Your task to perform on an android device: Show me popular games on the Play Store Image 0: 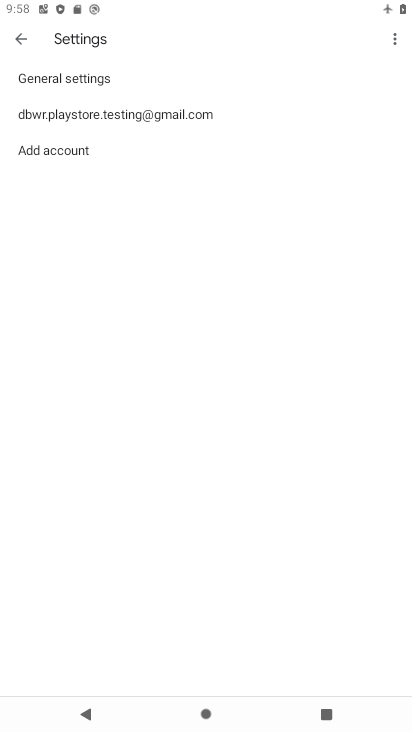
Step 0: press home button
Your task to perform on an android device: Show me popular games on the Play Store Image 1: 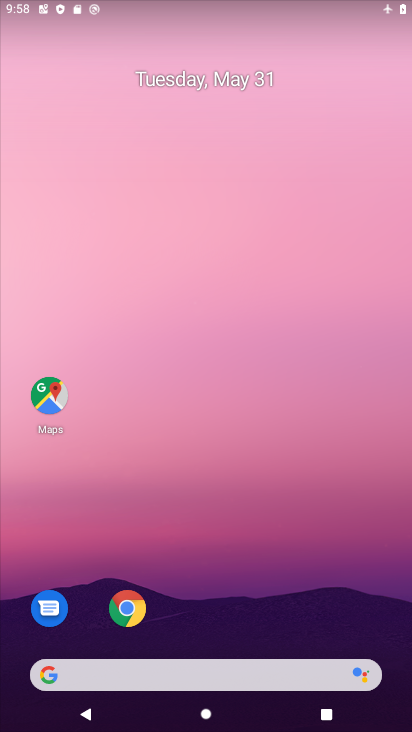
Step 1: drag from (209, 645) to (191, 81)
Your task to perform on an android device: Show me popular games on the Play Store Image 2: 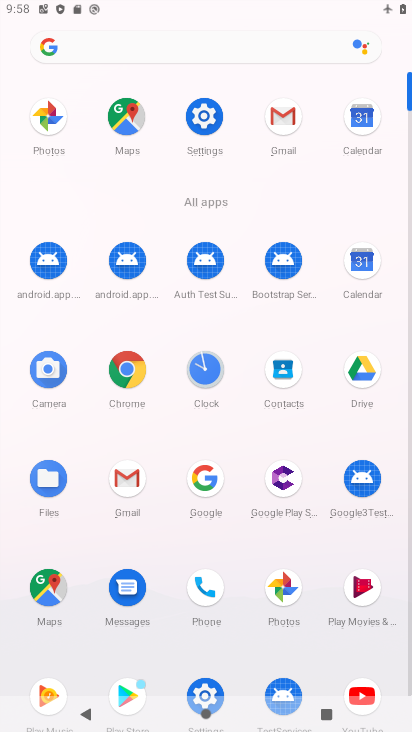
Step 2: click (138, 680)
Your task to perform on an android device: Show me popular games on the Play Store Image 3: 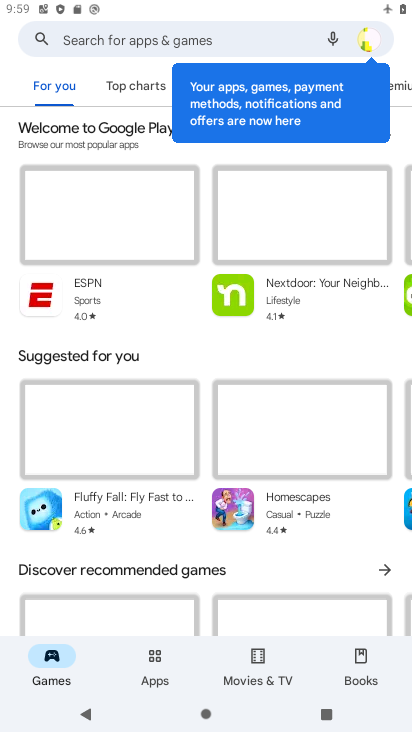
Step 3: click (88, 39)
Your task to perform on an android device: Show me popular games on the Play Store Image 4: 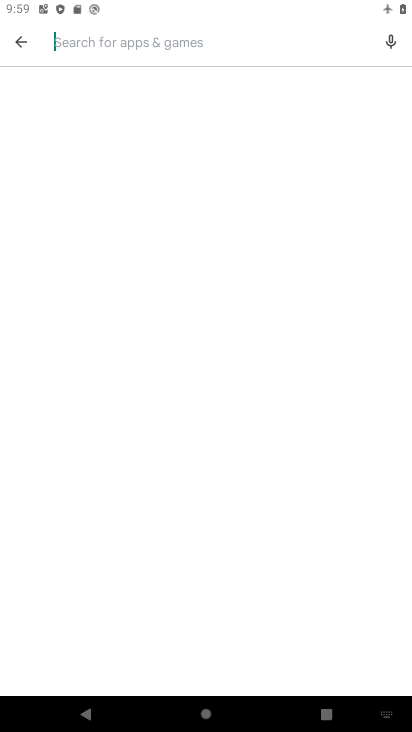
Step 4: click (3, 41)
Your task to perform on an android device: Show me popular games on the Play Store Image 5: 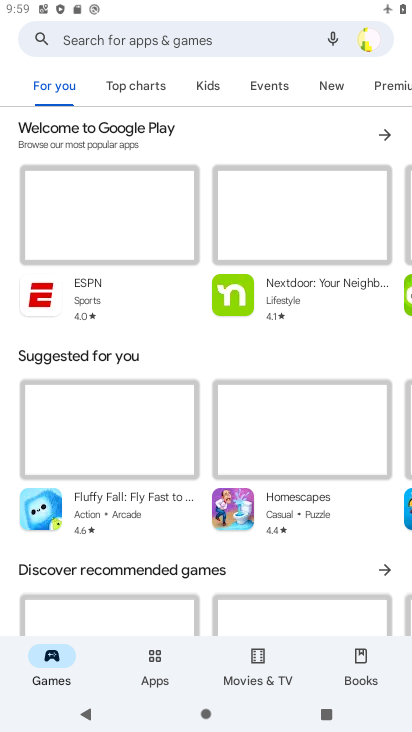
Step 5: drag from (289, 513) to (214, 140)
Your task to perform on an android device: Show me popular games on the Play Store Image 6: 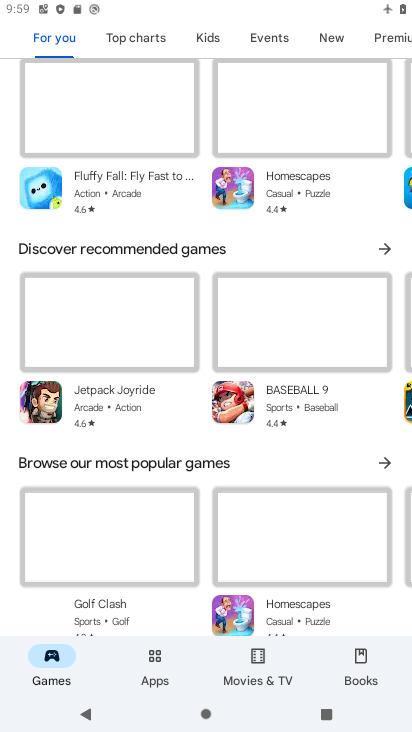
Step 6: click (387, 460)
Your task to perform on an android device: Show me popular games on the Play Store Image 7: 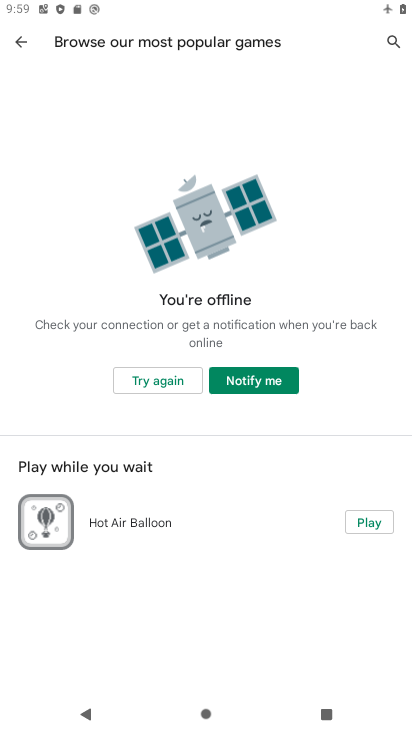
Step 7: task complete